Your task to perform on an android device: change the clock display to show seconds Image 0: 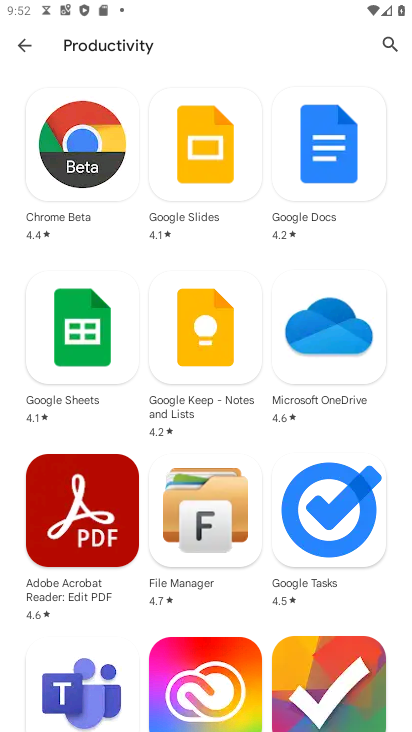
Step 0: press home button
Your task to perform on an android device: change the clock display to show seconds Image 1: 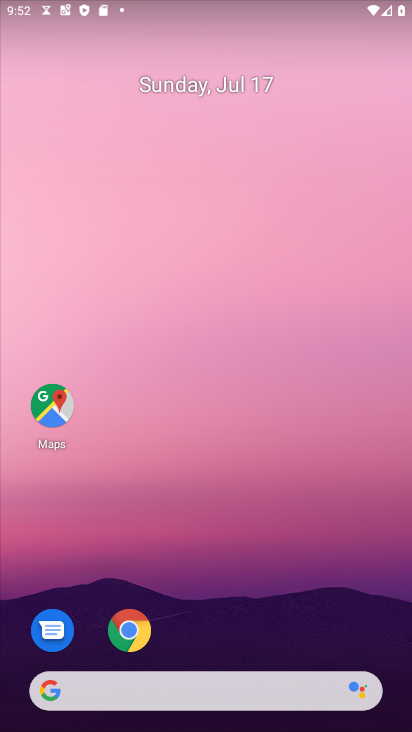
Step 1: drag from (183, 618) to (242, 13)
Your task to perform on an android device: change the clock display to show seconds Image 2: 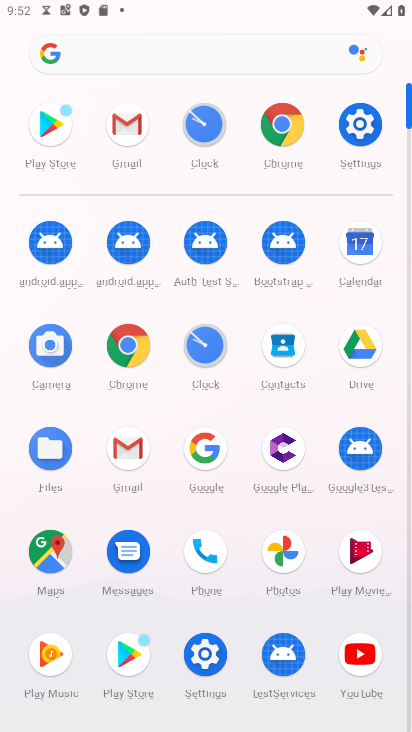
Step 2: click (206, 360)
Your task to perform on an android device: change the clock display to show seconds Image 3: 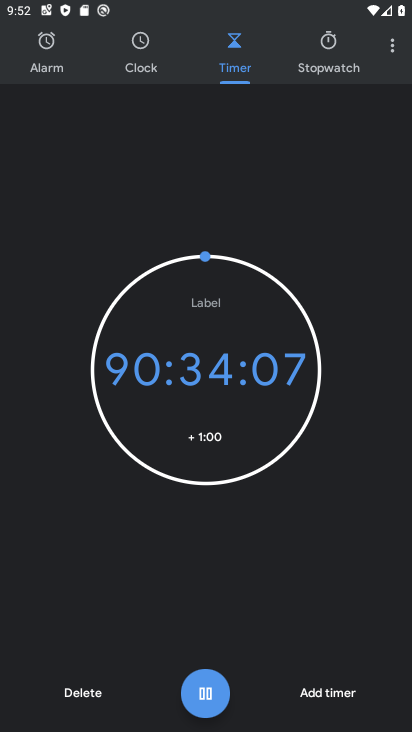
Step 3: click (388, 45)
Your task to perform on an android device: change the clock display to show seconds Image 4: 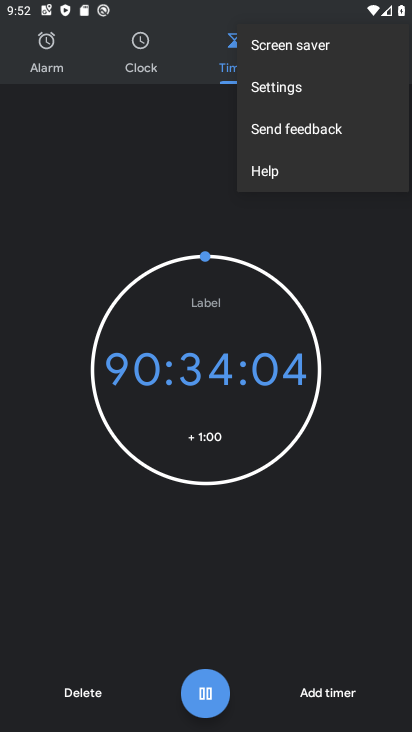
Step 4: click (303, 92)
Your task to perform on an android device: change the clock display to show seconds Image 5: 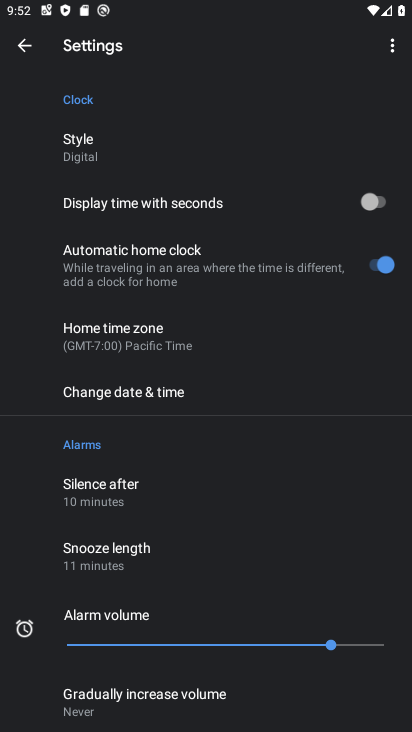
Step 5: click (375, 199)
Your task to perform on an android device: change the clock display to show seconds Image 6: 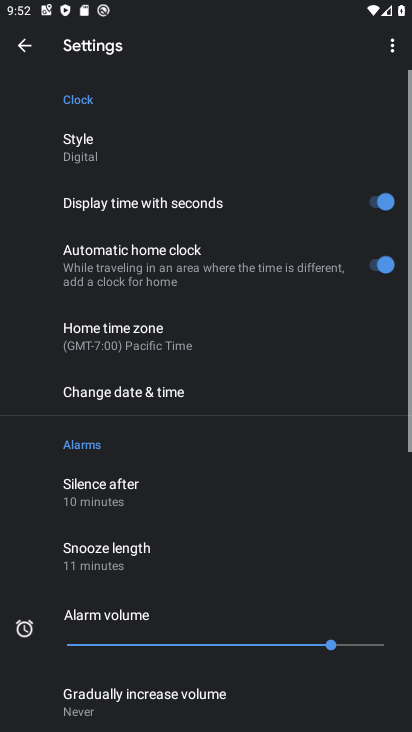
Step 6: task complete